Your task to perform on an android device: Open sound settings Image 0: 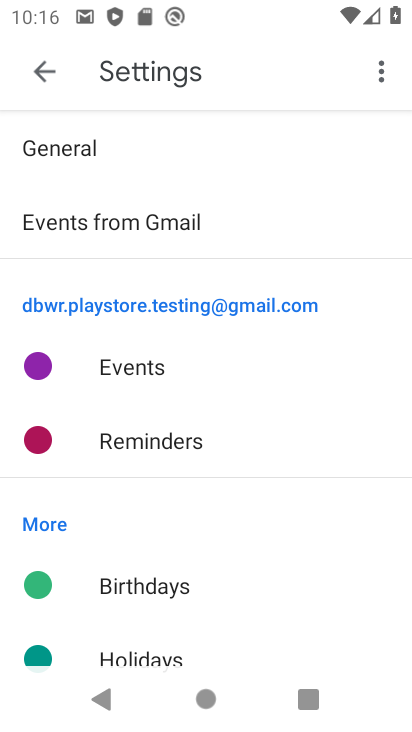
Step 0: press home button
Your task to perform on an android device: Open sound settings Image 1: 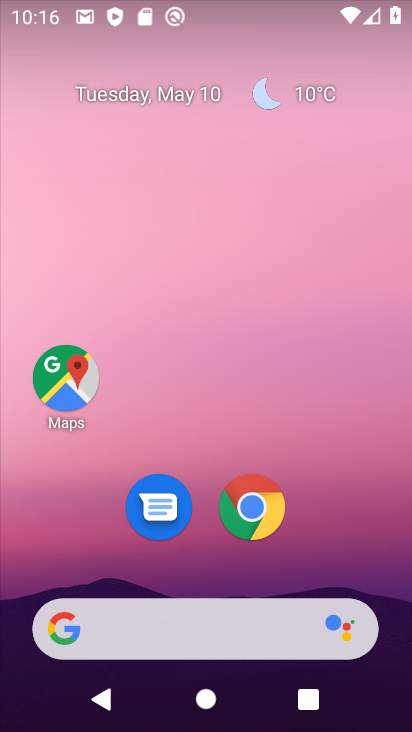
Step 1: drag from (223, 705) to (223, 84)
Your task to perform on an android device: Open sound settings Image 2: 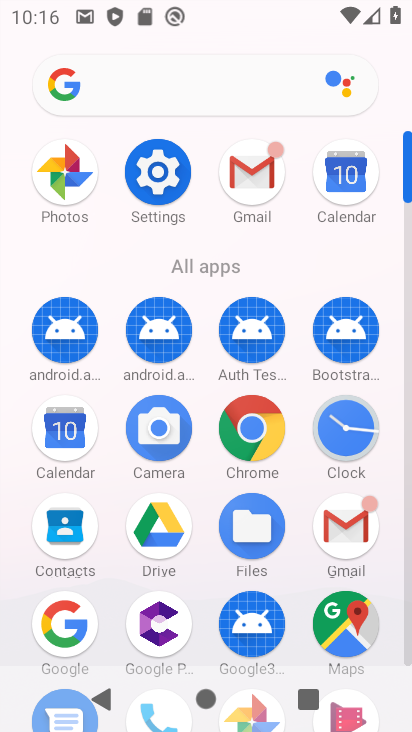
Step 2: click (151, 181)
Your task to perform on an android device: Open sound settings Image 3: 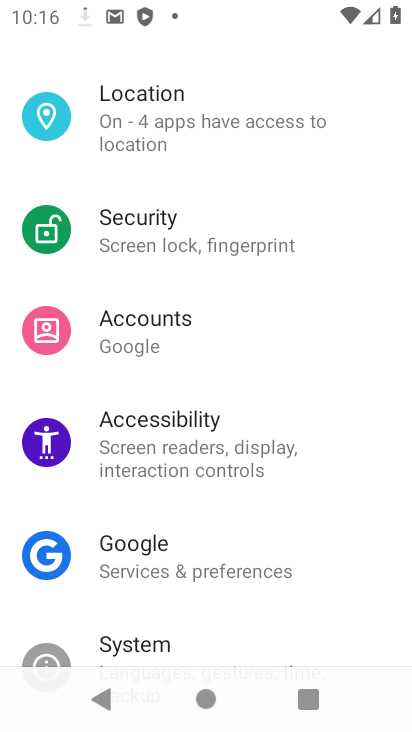
Step 3: drag from (186, 614) to (186, 244)
Your task to perform on an android device: Open sound settings Image 4: 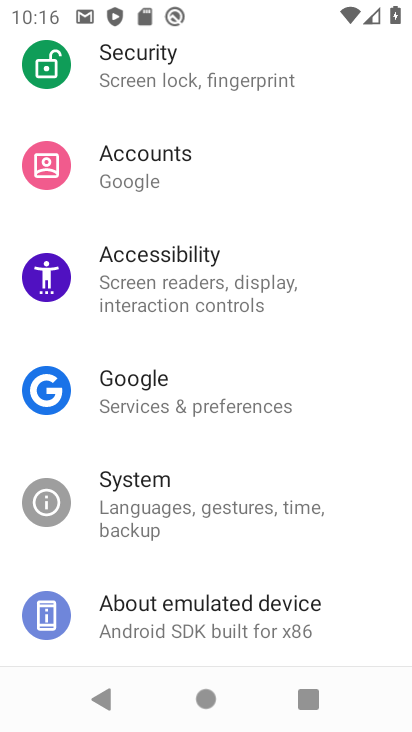
Step 4: drag from (185, 618) to (187, 278)
Your task to perform on an android device: Open sound settings Image 5: 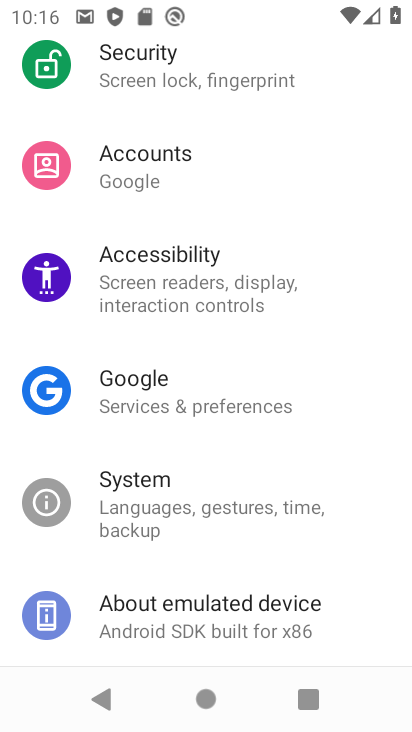
Step 5: drag from (280, 168) to (266, 541)
Your task to perform on an android device: Open sound settings Image 6: 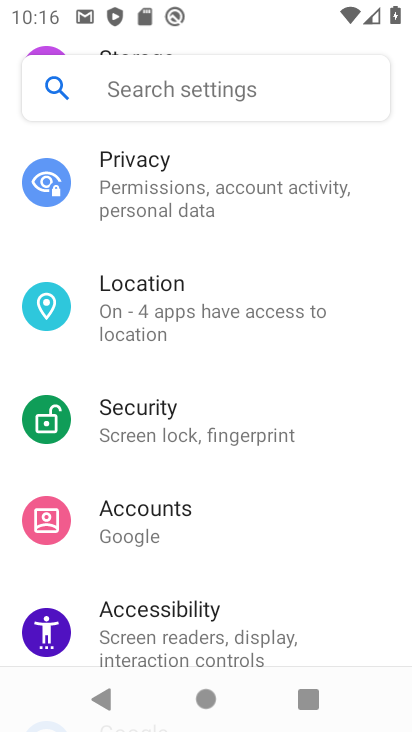
Step 6: drag from (244, 212) to (244, 591)
Your task to perform on an android device: Open sound settings Image 7: 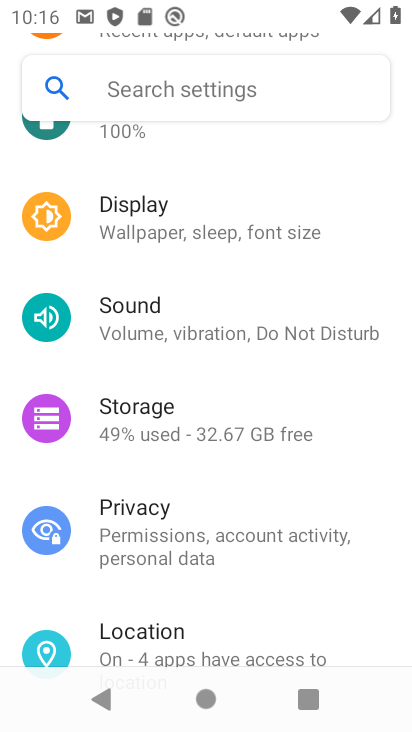
Step 7: click (157, 315)
Your task to perform on an android device: Open sound settings Image 8: 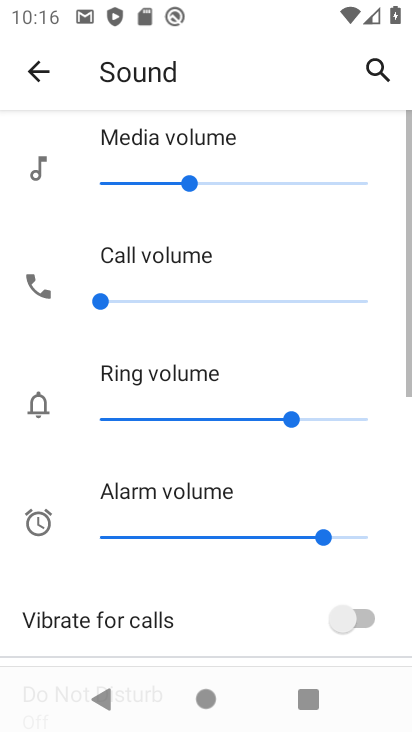
Step 8: task complete